Your task to perform on an android device: install app "Paramount+ | Peak Streaming" Image 0: 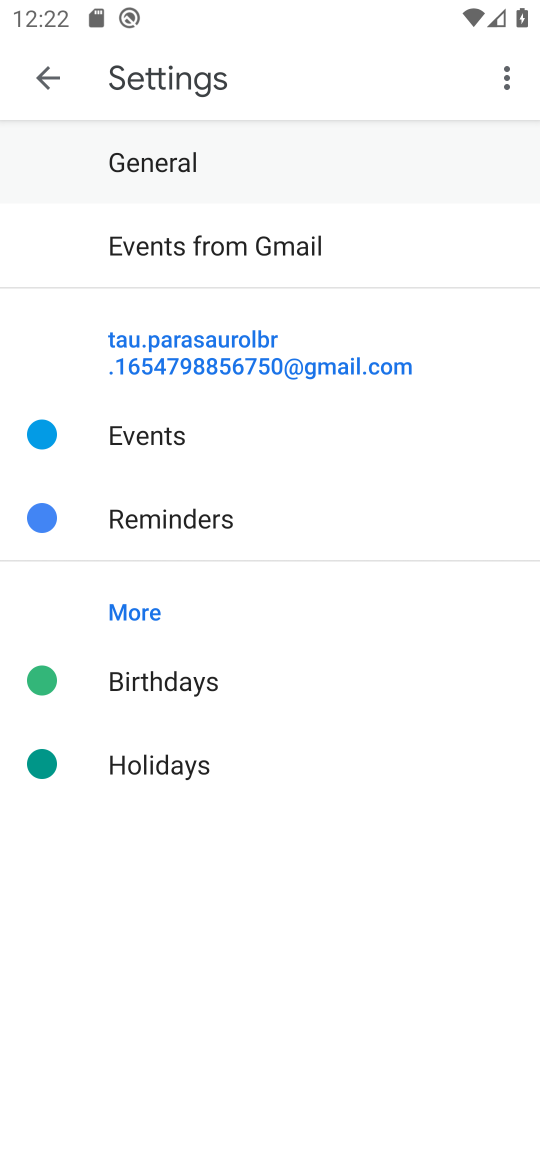
Step 0: press home button
Your task to perform on an android device: install app "Paramount+ | Peak Streaming" Image 1: 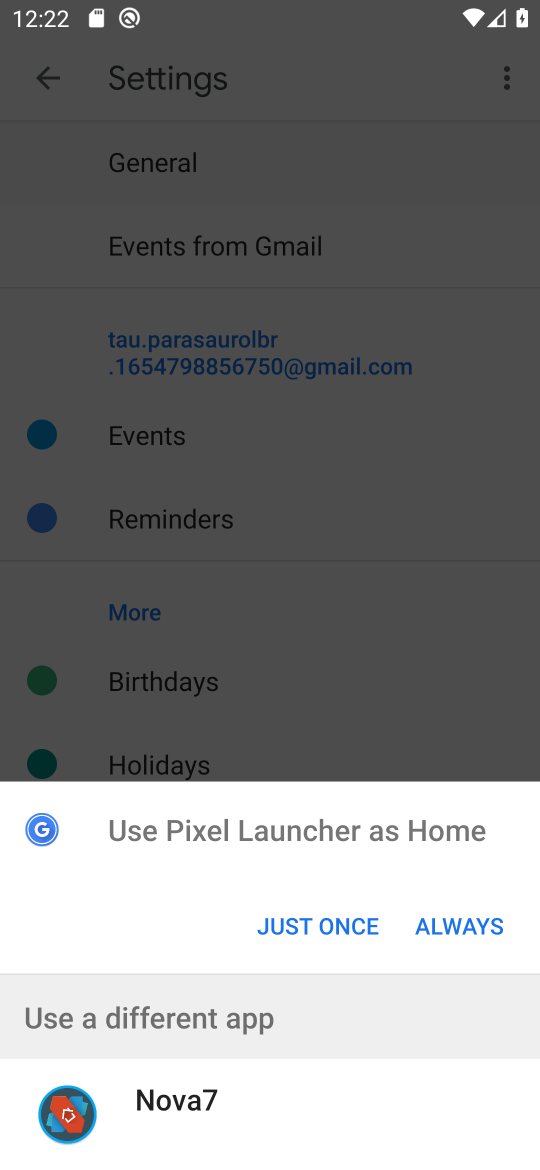
Step 1: click (299, 934)
Your task to perform on an android device: install app "Paramount+ | Peak Streaming" Image 2: 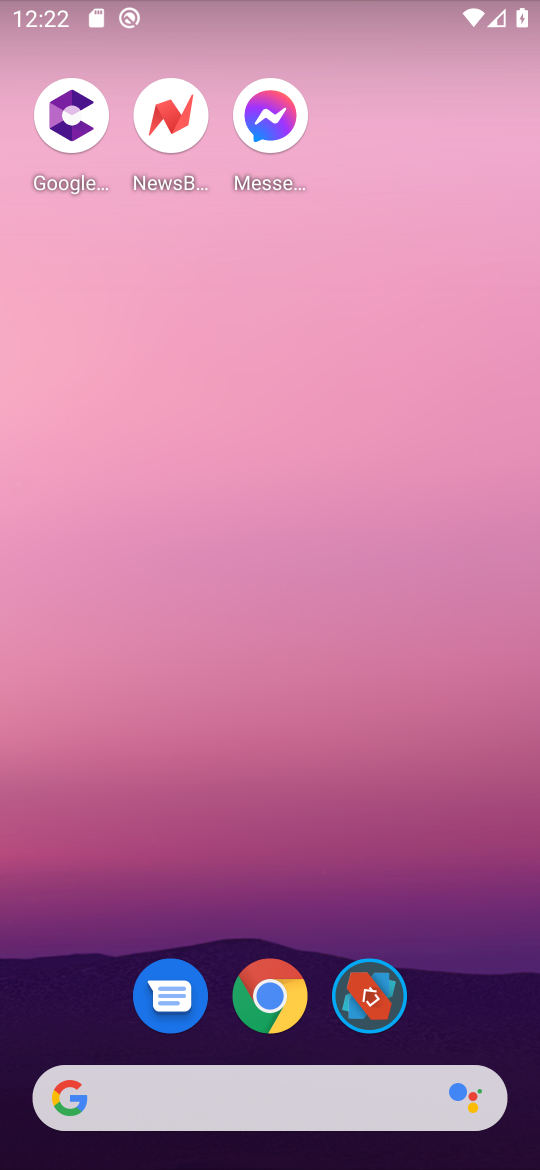
Step 2: drag from (281, 960) to (346, 73)
Your task to perform on an android device: install app "Paramount+ | Peak Streaming" Image 3: 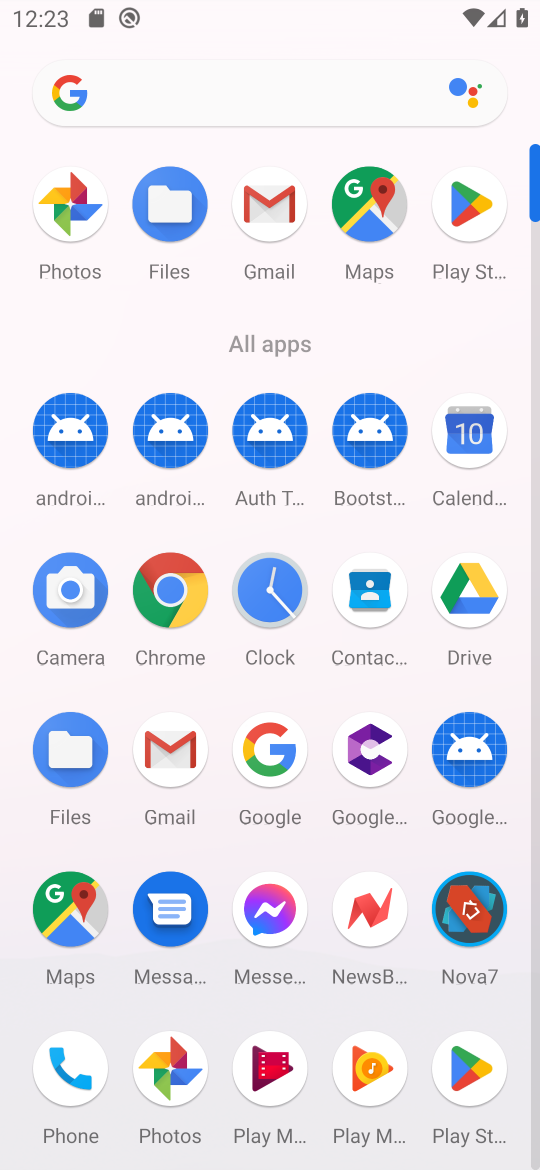
Step 3: click (469, 217)
Your task to perform on an android device: install app "Paramount+ | Peak Streaming" Image 4: 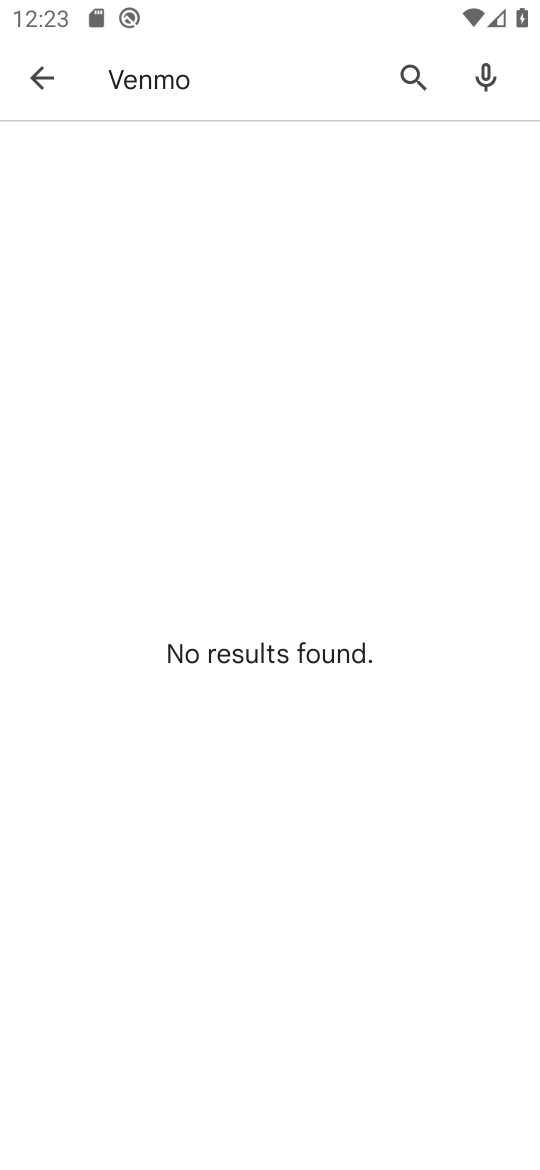
Step 4: click (27, 90)
Your task to perform on an android device: install app "Paramount+ | Peak Streaming" Image 5: 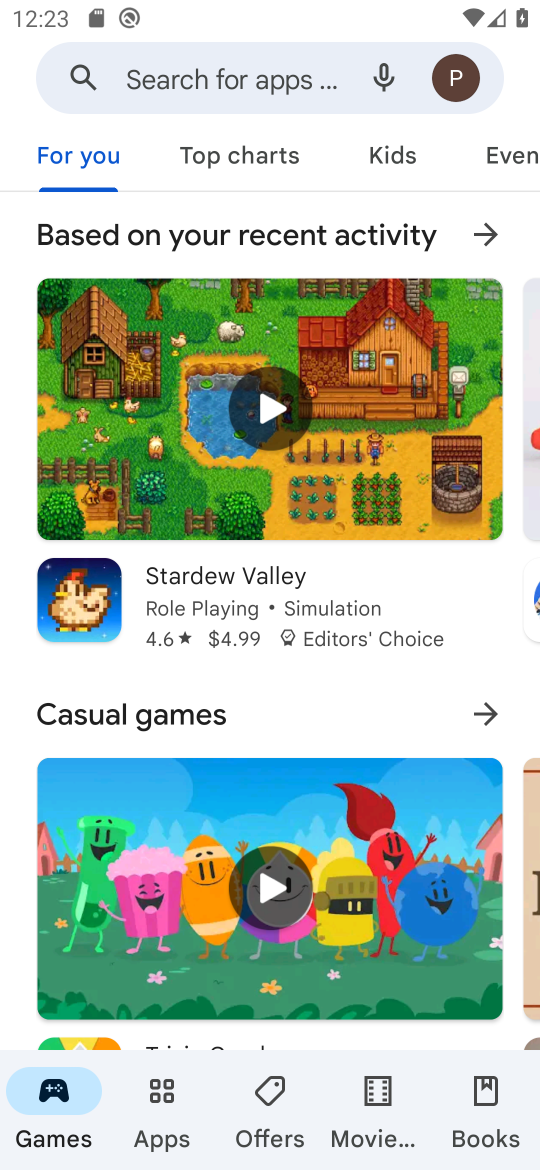
Step 5: click (248, 75)
Your task to perform on an android device: install app "Paramount+ | Peak Streaming" Image 6: 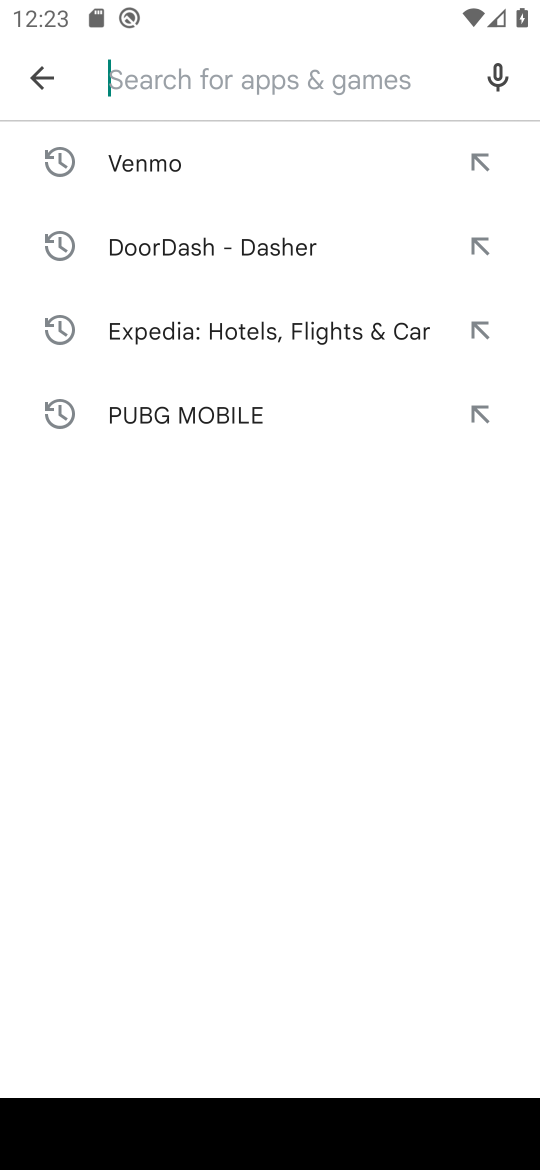
Step 6: type "Paramount+ | Peak Streaming"
Your task to perform on an android device: install app "Paramount+ | Peak Streaming" Image 7: 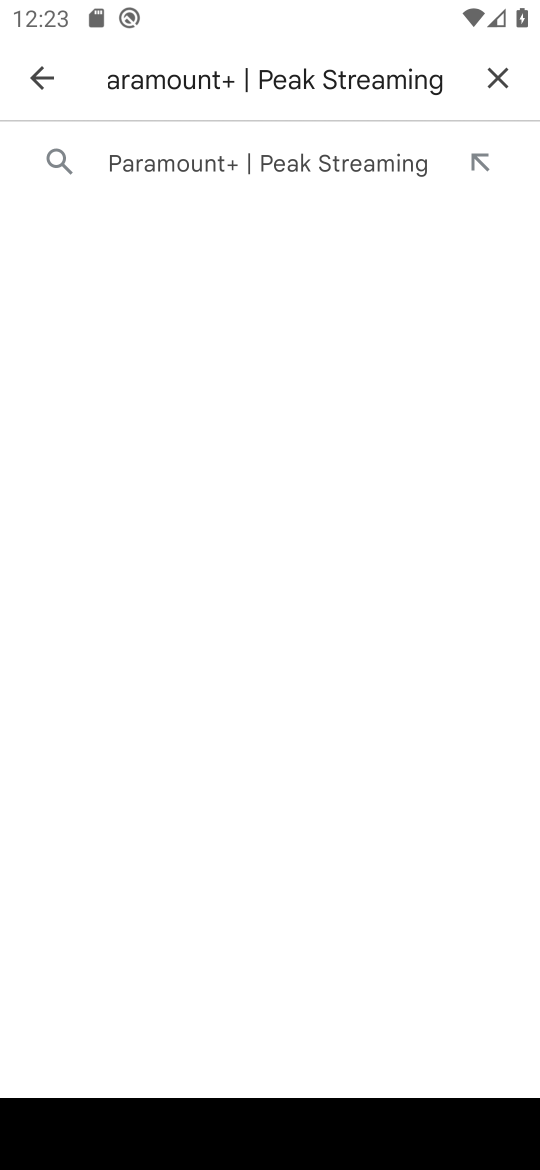
Step 7: press enter
Your task to perform on an android device: install app "Paramount+ | Peak Streaming" Image 8: 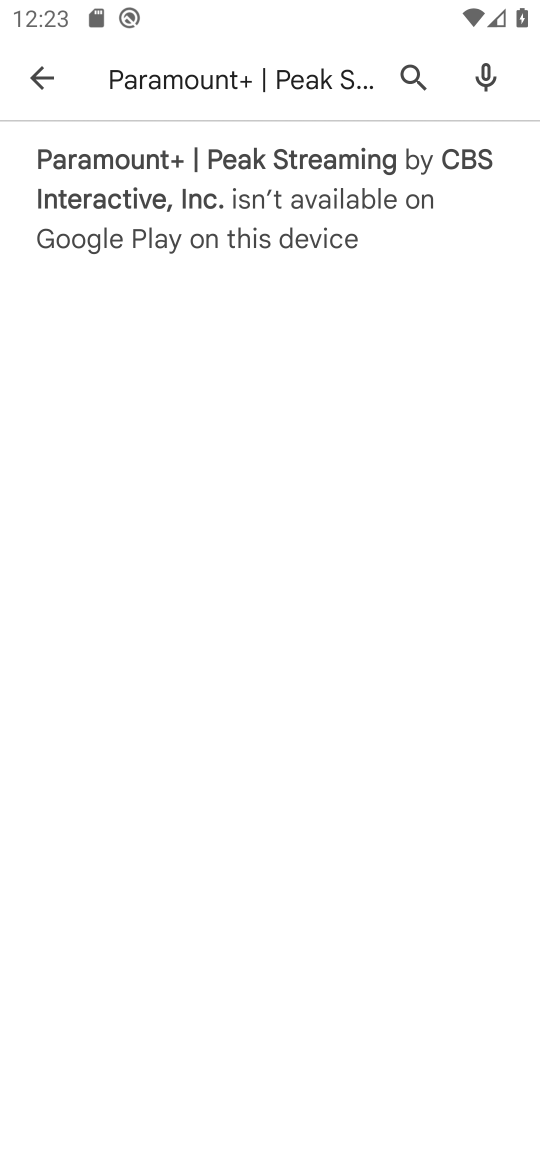
Step 8: click (153, 222)
Your task to perform on an android device: install app "Paramount+ | Peak Streaming" Image 9: 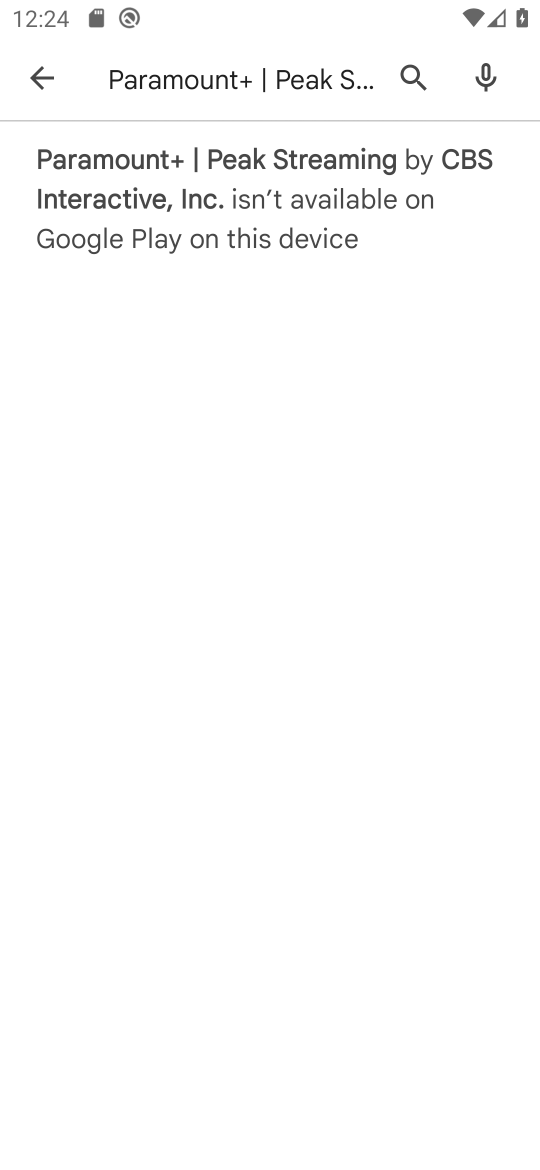
Step 9: press enter
Your task to perform on an android device: install app "Paramount+ | Peak Streaming" Image 10: 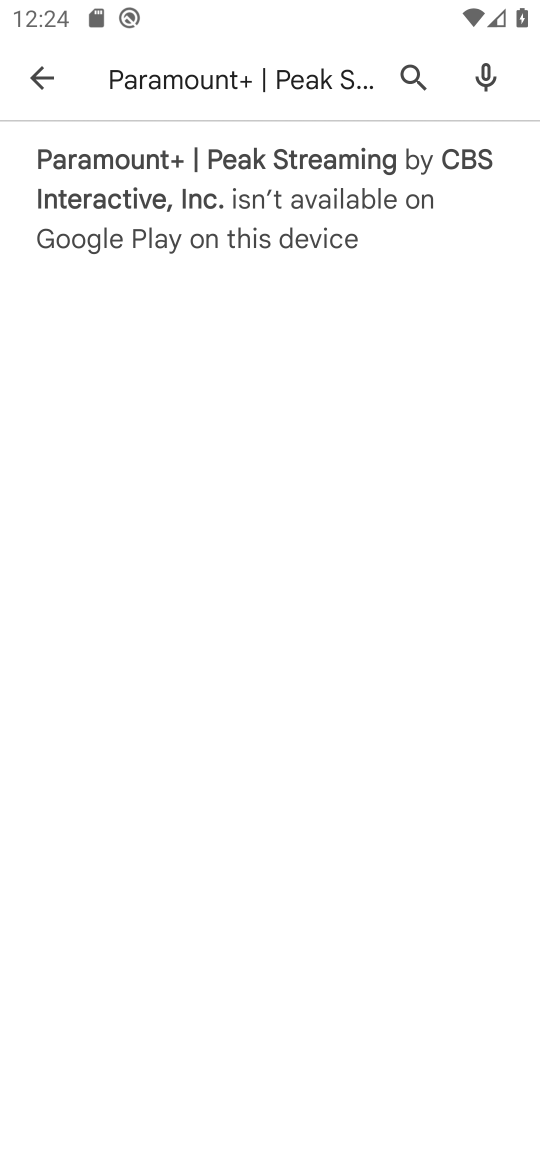
Step 10: click (247, 184)
Your task to perform on an android device: install app "Paramount+ | Peak Streaming" Image 11: 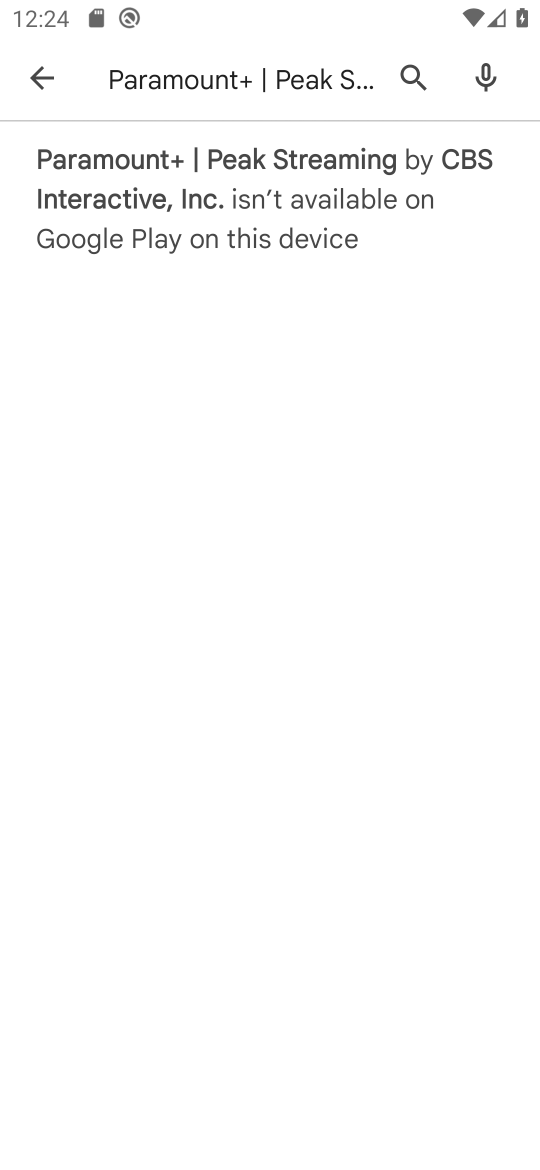
Step 11: click (309, 230)
Your task to perform on an android device: install app "Paramount+ | Peak Streaming" Image 12: 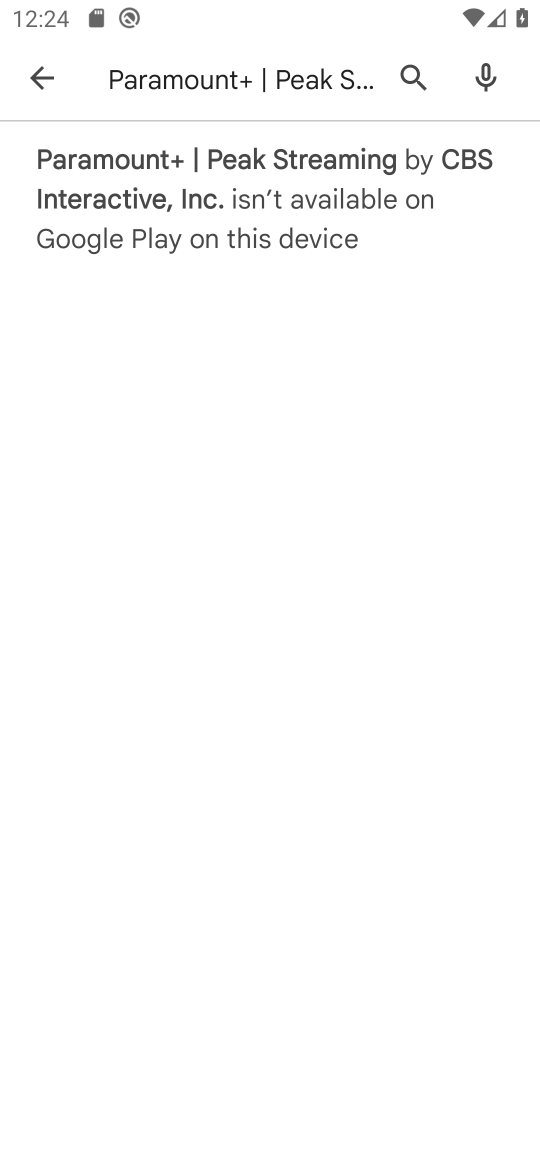
Step 12: click (309, 230)
Your task to perform on an android device: install app "Paramount+ | Peak Streaming" Image 13: 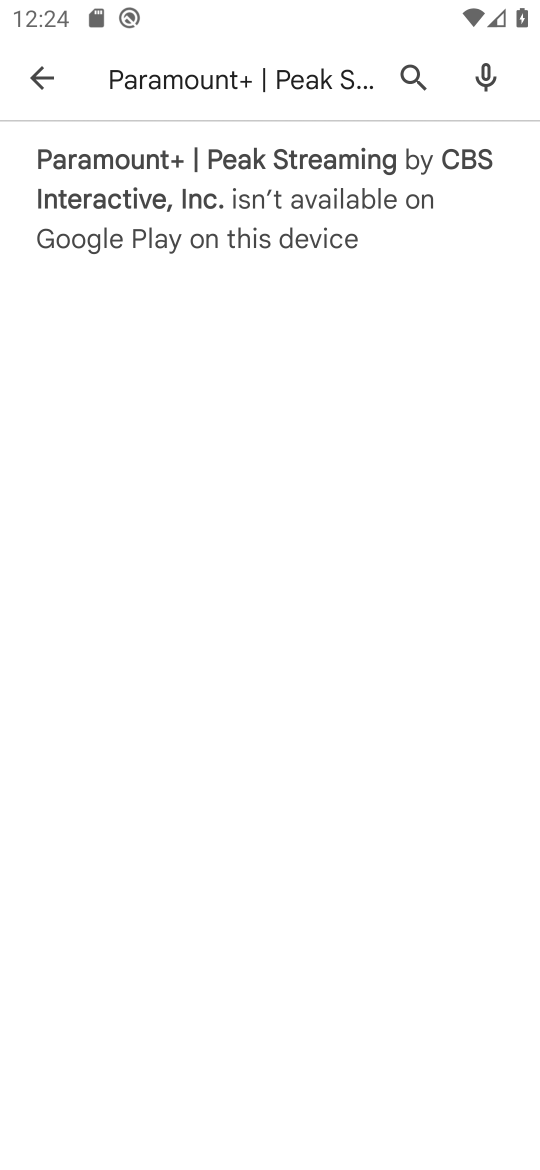
Step 13: task complete